Your task to perform on an android device: snooze an email in the gmail app Image 0: 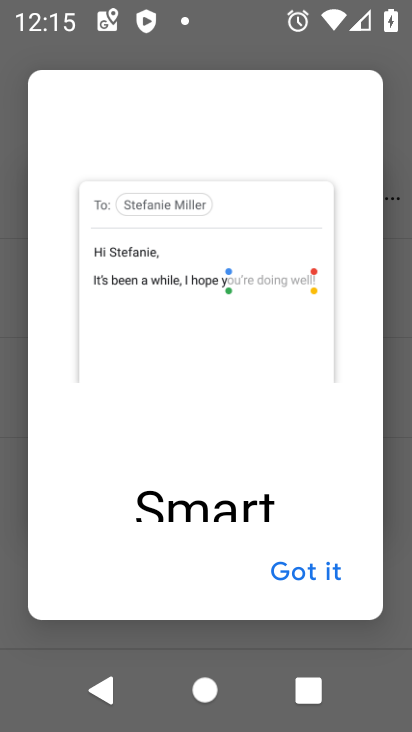
Step 0: press home button
Your task to perform on an android device: snooze an email in the gmail app Image 1: 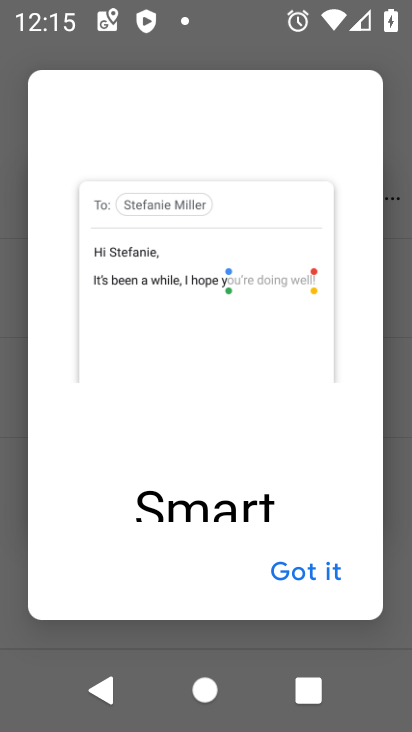
Step 1: press home button
Your task to perform on an android device: snooze an email in the gmail app Image 2: 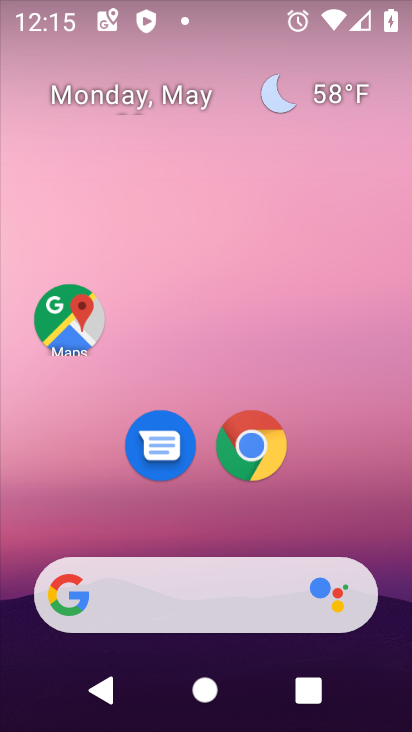
Step 2: drag from (205, 532) to (200, 25)
Your task to perform on an android device: snooze an email in the gmail app Image 3: 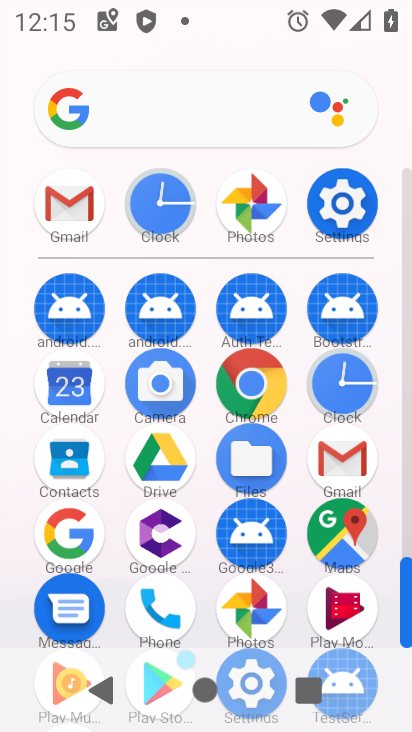
Step 3: click (66, 197)
Your task to perform on an android device: snooze an email in the gmail app Image 4: 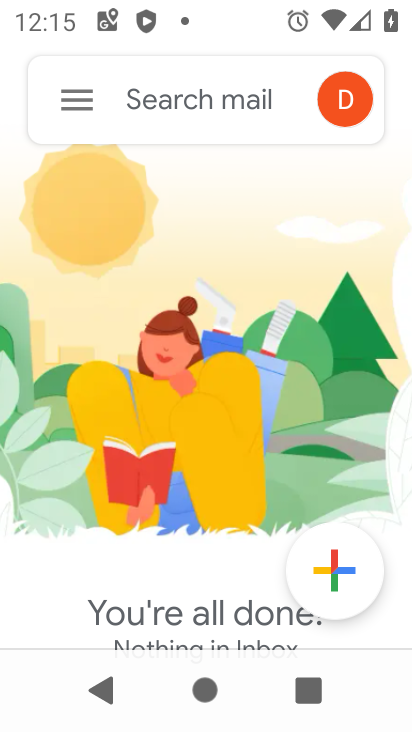
Step 4: click (73, 102)
Your task to perform on an android device: snooze an email in the gmail app Image 5: 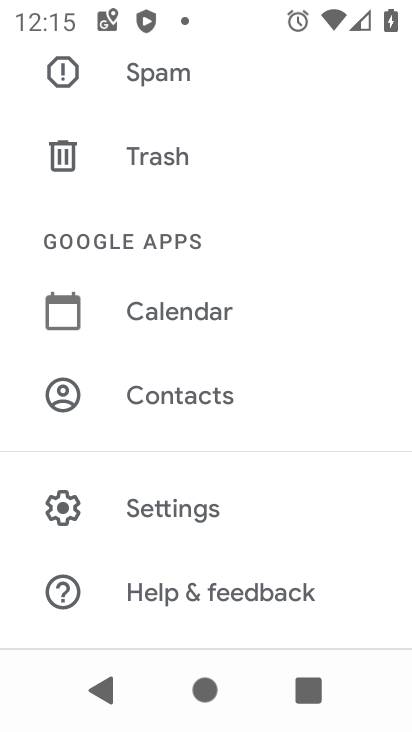
Step 5: task complete